Your task to perform on an android device: change alarm snooze length Image 0: 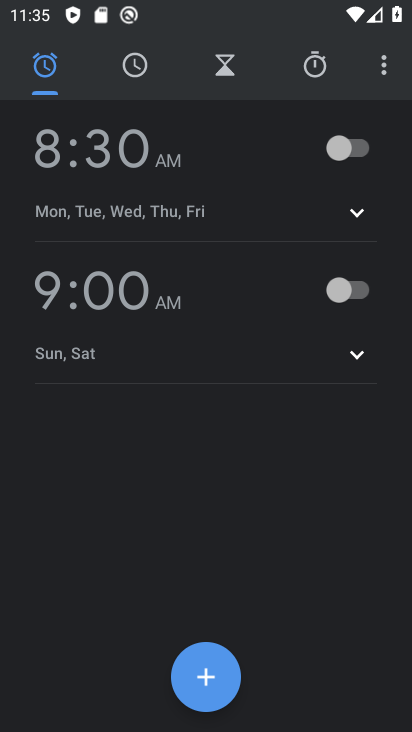
Step 0: press home button
Your task to perform on an android device: change alarm snooze length Image 1: 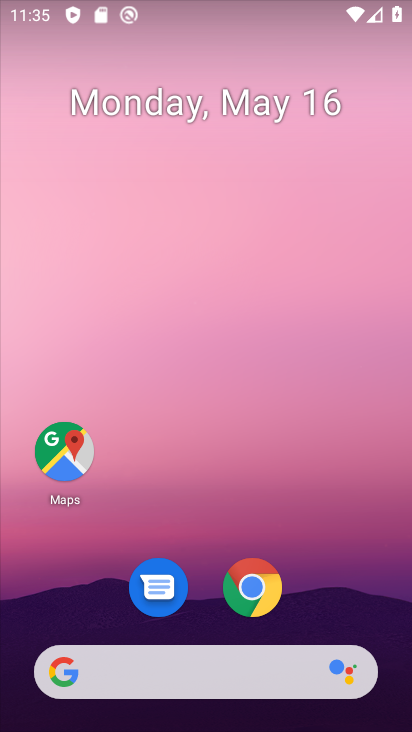
Step 1: drag from (342, 595) to (204, 184)
Your task to perform on an android device: change alarm snooze length Image 2: 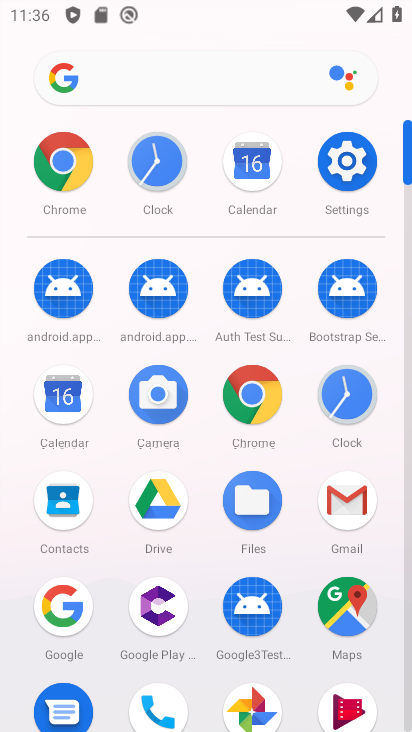
Step 2: click (349, 397)
Your task to perform on an android device: change alarm snooze length Image 3: 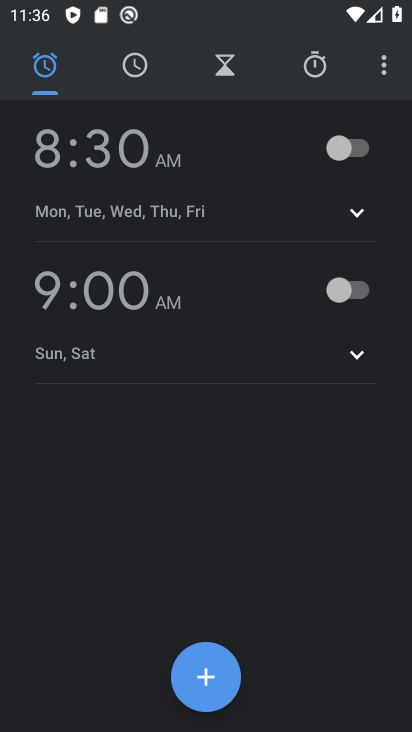
Step 3: click (387, 63)
Your task to perform on an android device: change alarm snooze length Image 4: 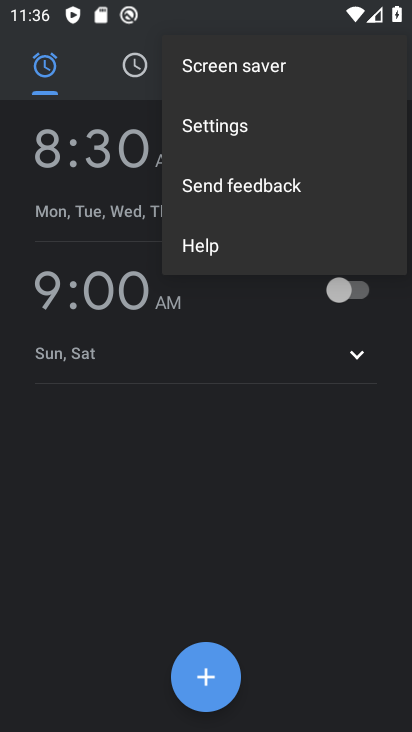
Step 4: click (283, 132)
Your task to perform on an android device: change alarm snooze length Image 5: 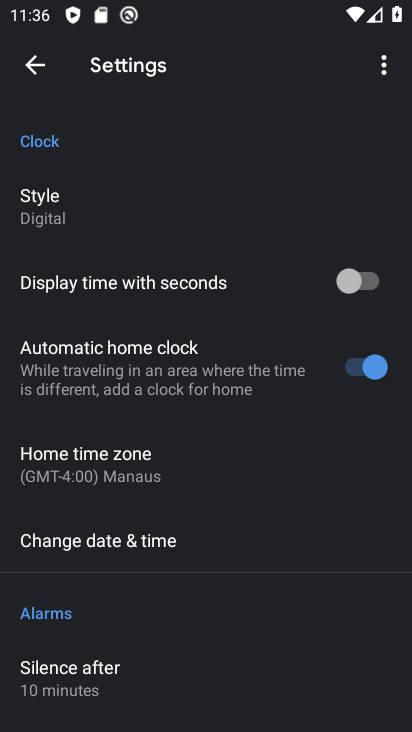
Step 5: drag from (144, 586) to (164, 296)
Your task to perform on an android device: change alarm snooze length Image 6: 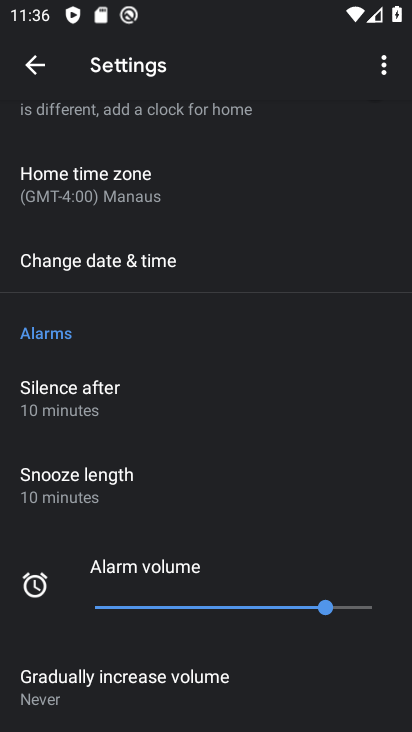
Step 6: click (157, 487)
Your task to perform on an android device: change alarm snooze length Image 7: 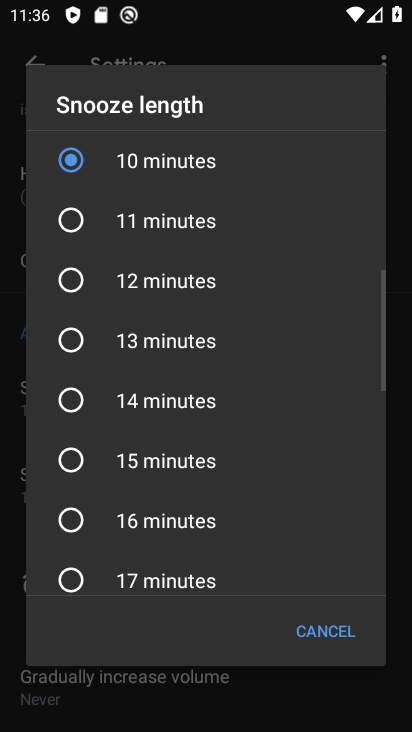
Step 7: click (178, 451)
Your task to perform on an android device: change alarm snooze length Image 8: 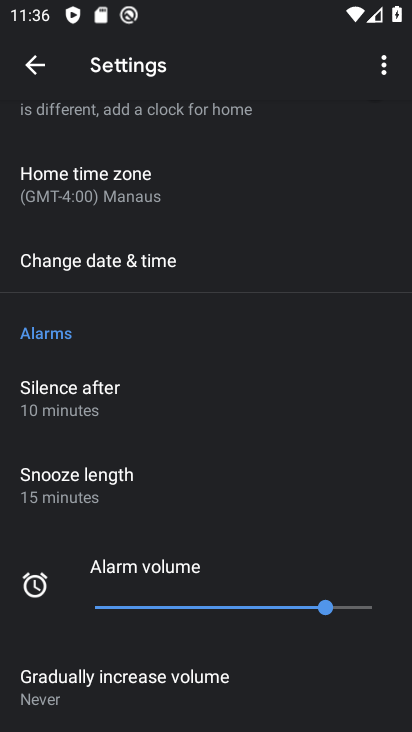
Step 8: task complete